Your task to perform on an android device: Open settings Image 0: 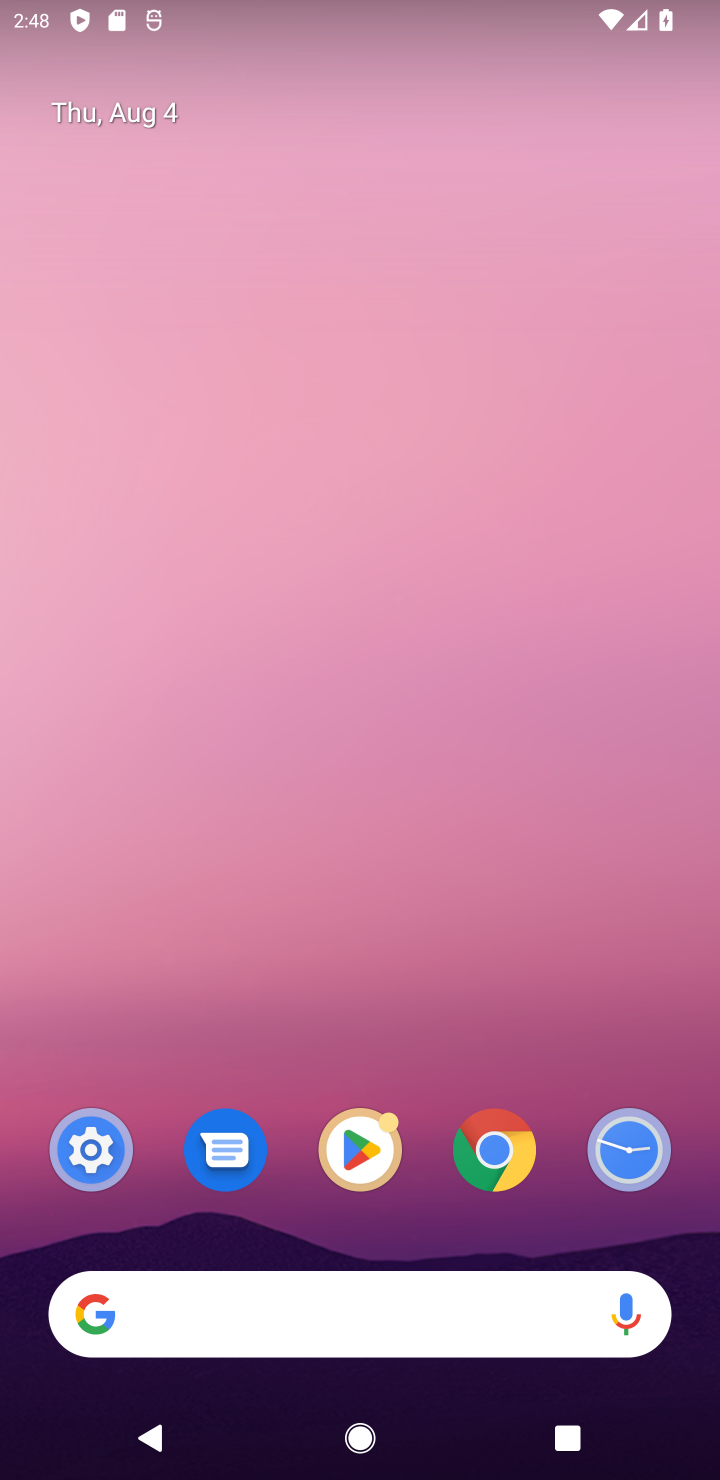
Step 0: drag from (452, 1001) to (352, 388)
Your task to perform on an android device: Open settings Image 1: 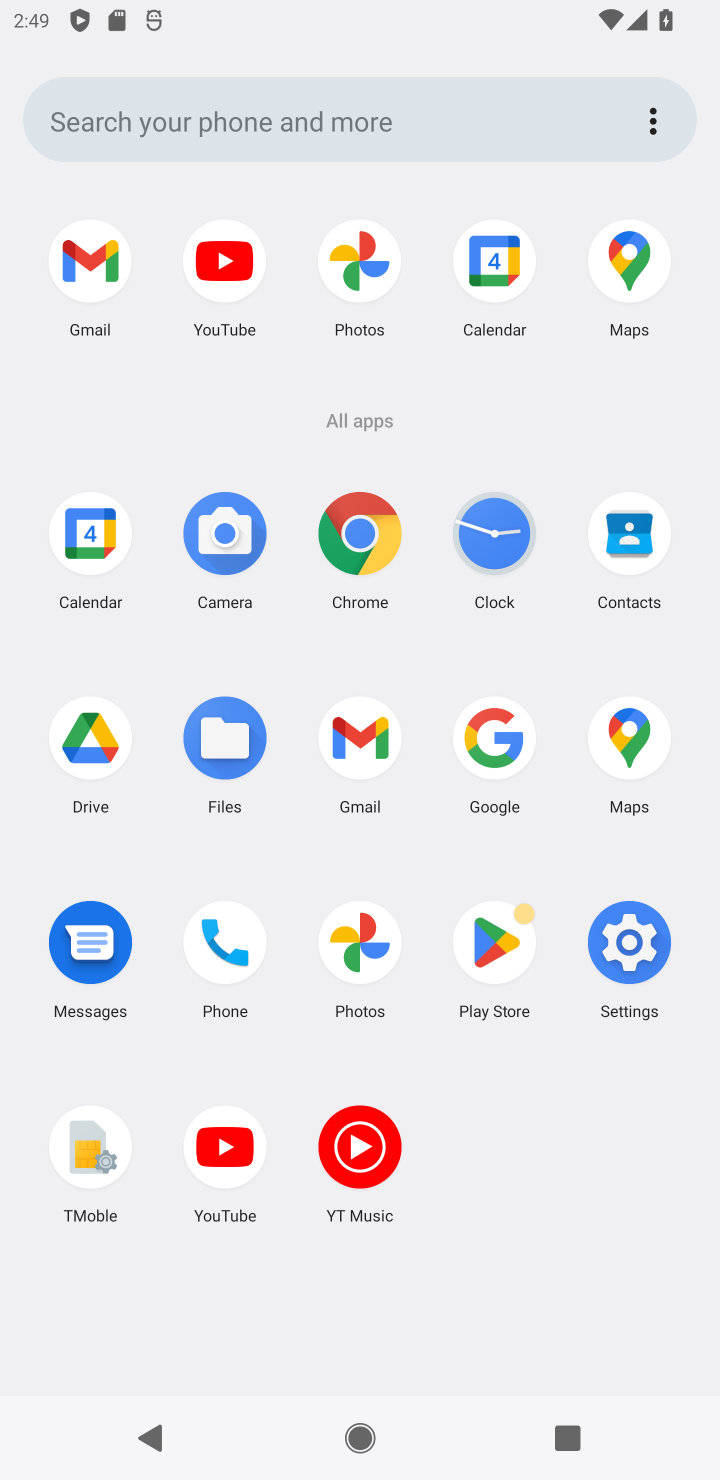
Step 1: drag from (410, 1459) to (672, 33)
Your task to perform on an android device: Open settings Image 2: 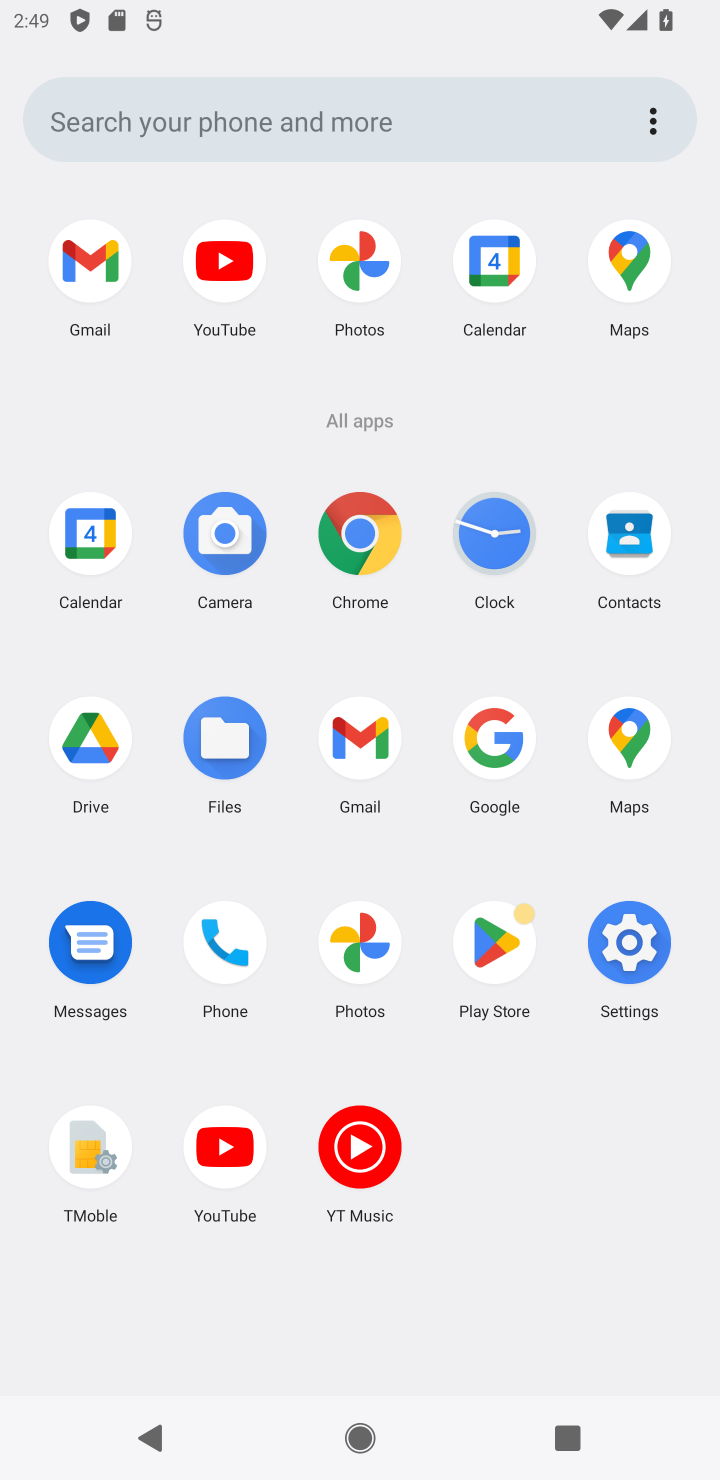
Step 2: click (638, 964)
Your task to perform on an android device: Open settings Image 3: 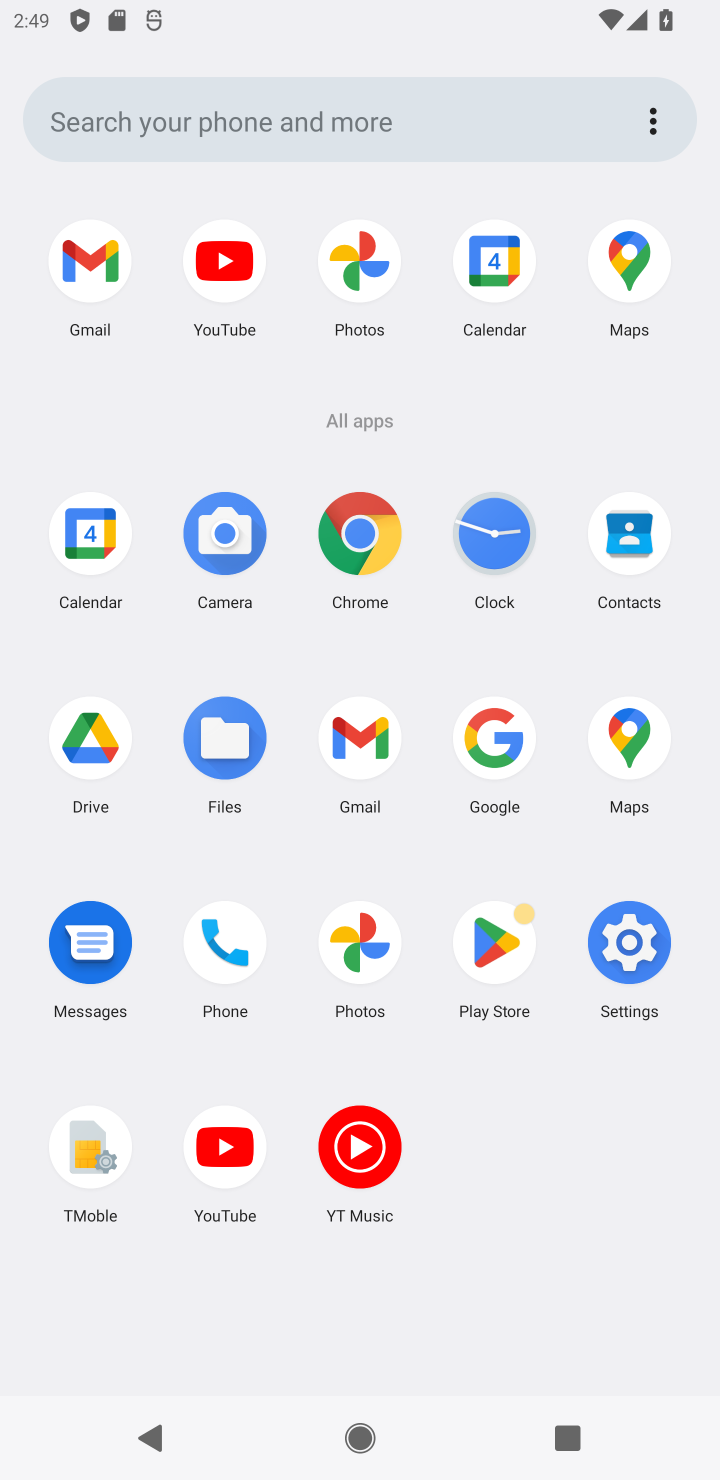
Step 3: click (624, 955)
Your task to perform on an android device: Open settings Image 4: 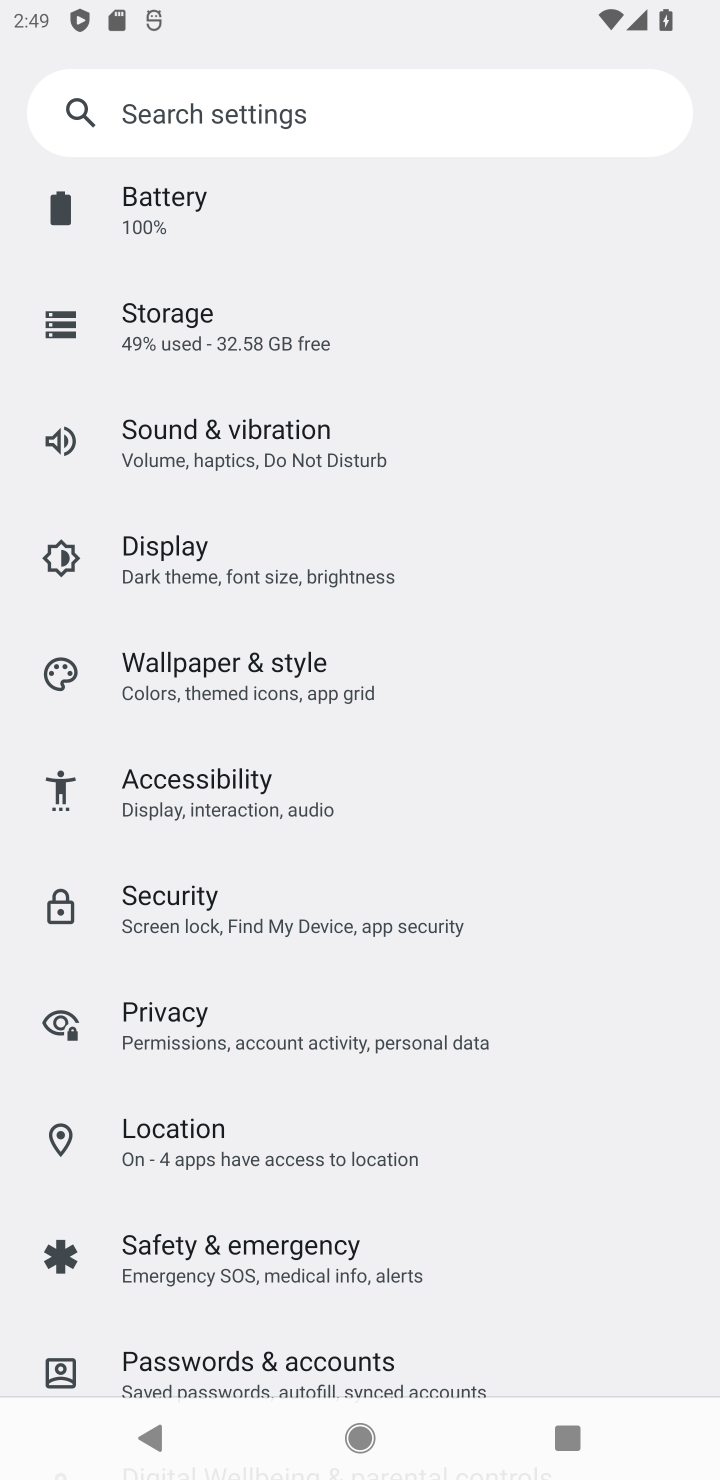
Step 4: click (617, 955)
Your task to perform on an android device: Open settings Image 5: 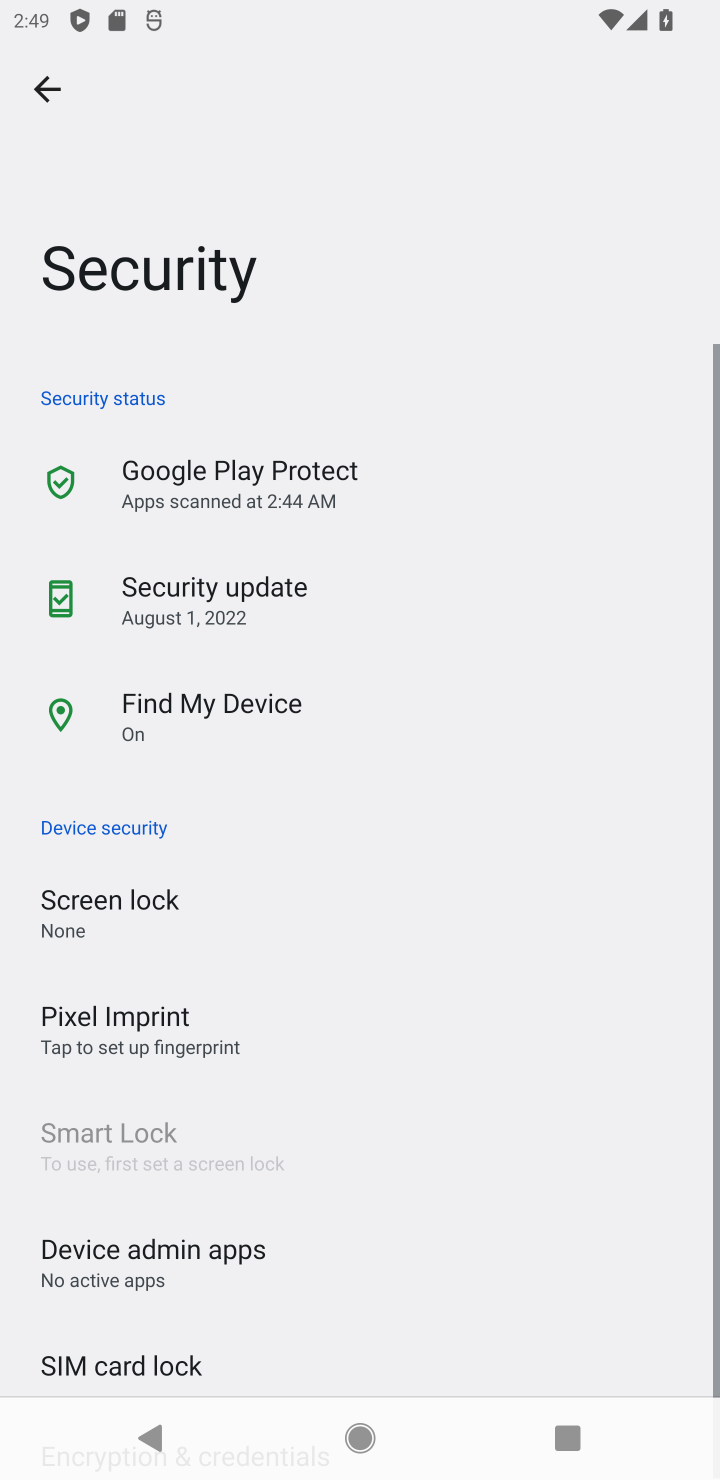
Step 5: task complete